Your task to perform on an android device: open app "Clock" Image 0: 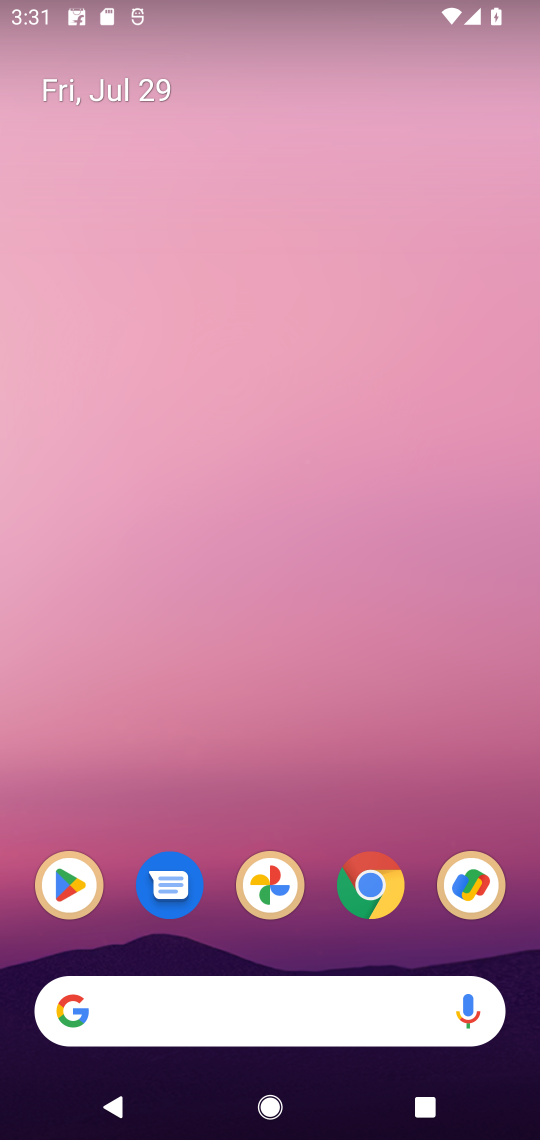
Step 0: click (69, 868)
Your task to perform on an android device: open app "Clock" Image 1: 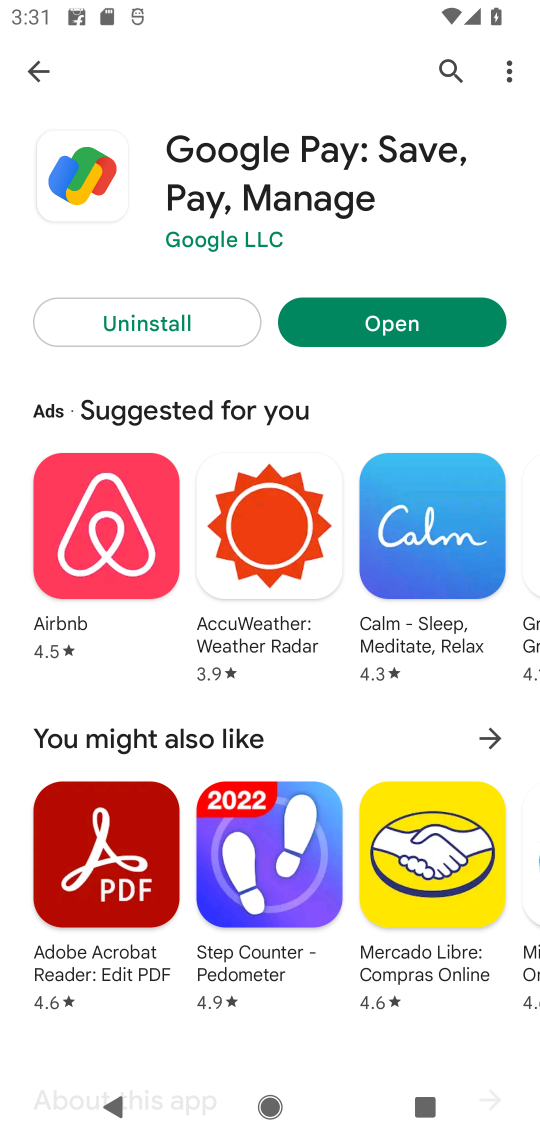
Step 1: click (457, 59)
Your task to perform on an android device: open app "Clock" Image 2: 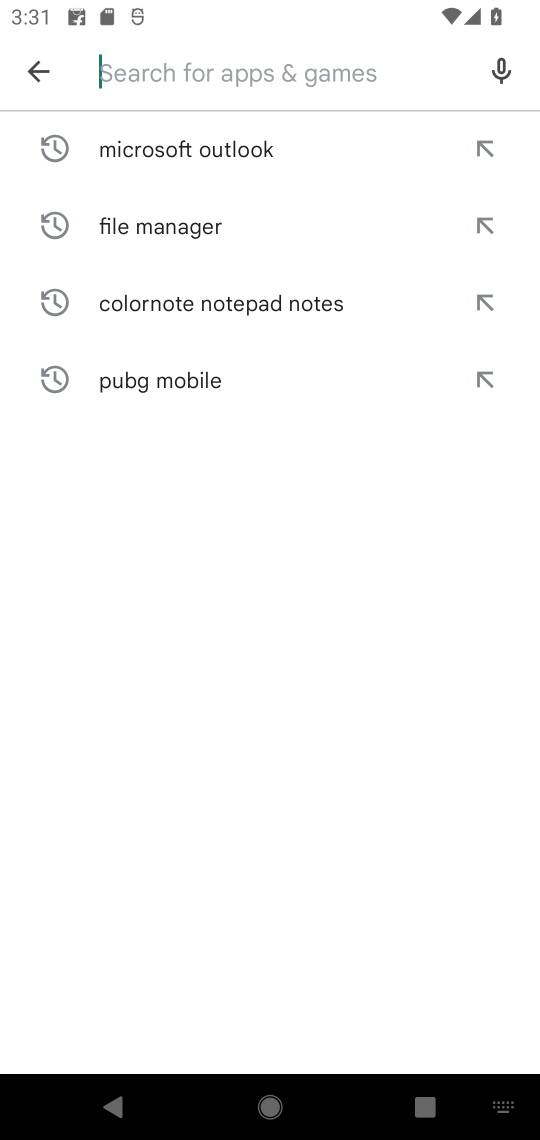
Step 2: click (457, 59)
Your task to perform on an android device: open app "Clock" Image 3: 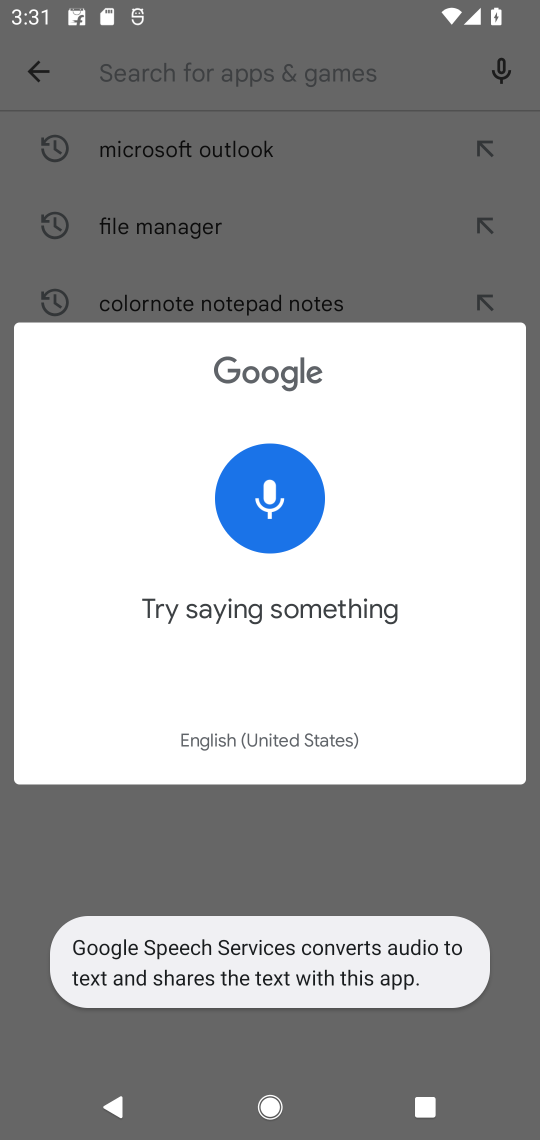
Step 3: click (389, 100)
Your task to perform on an android device: open app "Clock" Image 4: 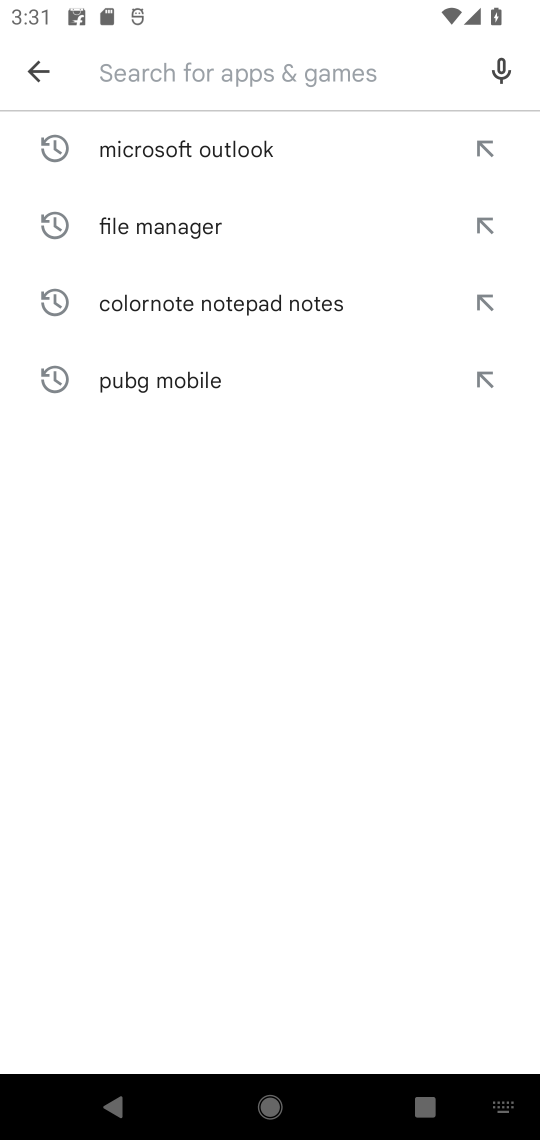
Step 4: type "Clock"
Your task to perform on an android device: open app "Clock" Image 5: 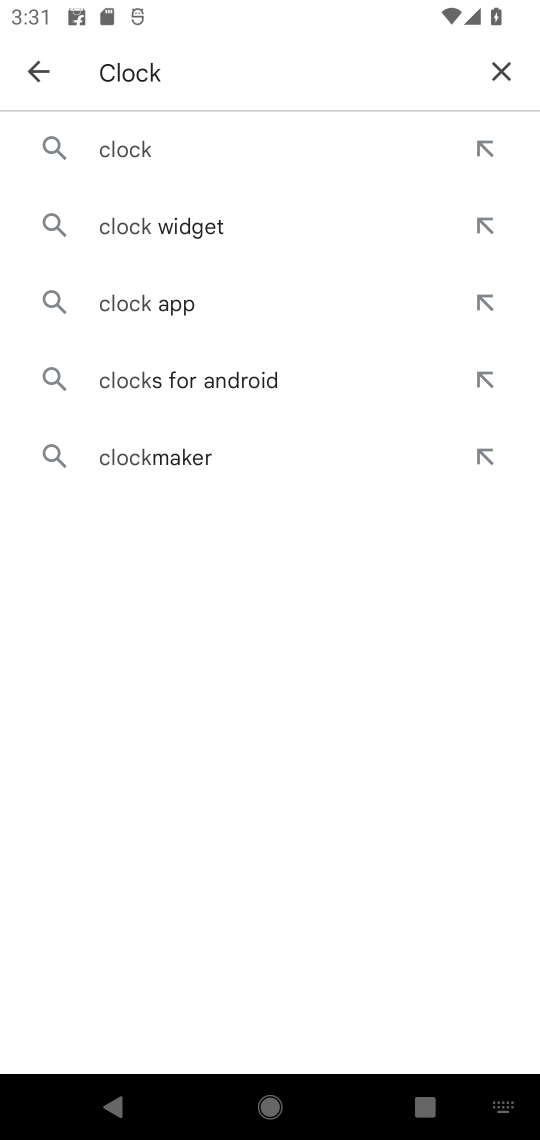
Step 5: click (296, 133)
Your task to perform on an android device: open app "Clock" Image 6: 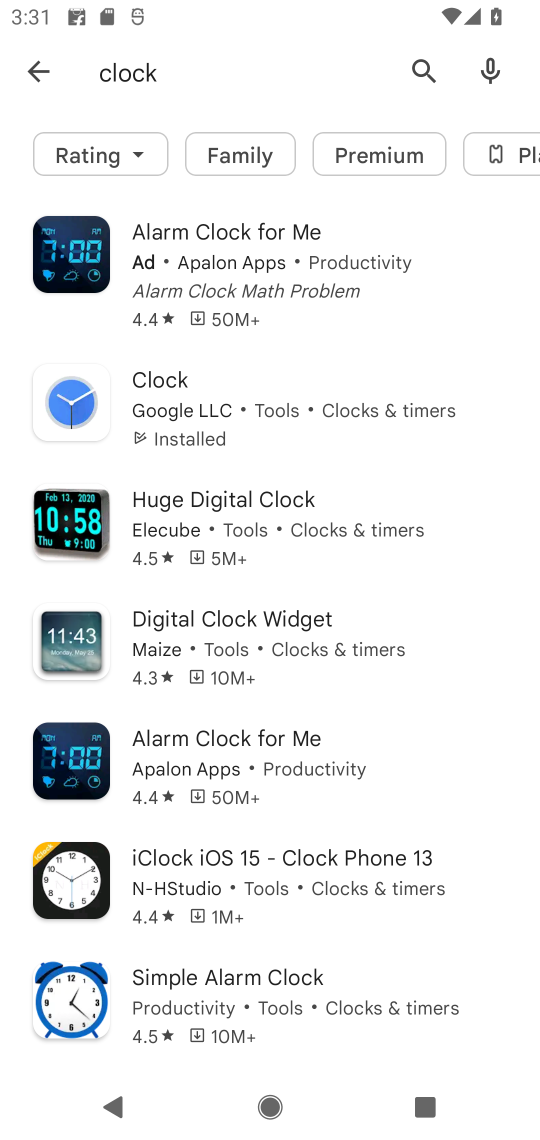
Step 6: click (256, 419)
Your task to perform on an android device: open app "Clock" Image 7: 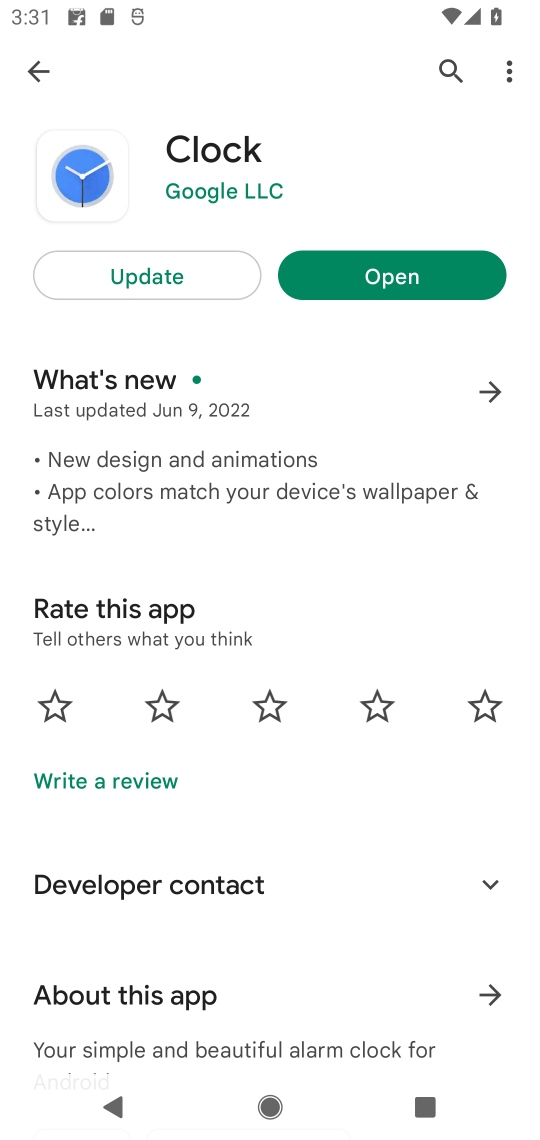
Step 7: click (373, 269)
Your task to perform on an android device: open app "Clock" Image 8: 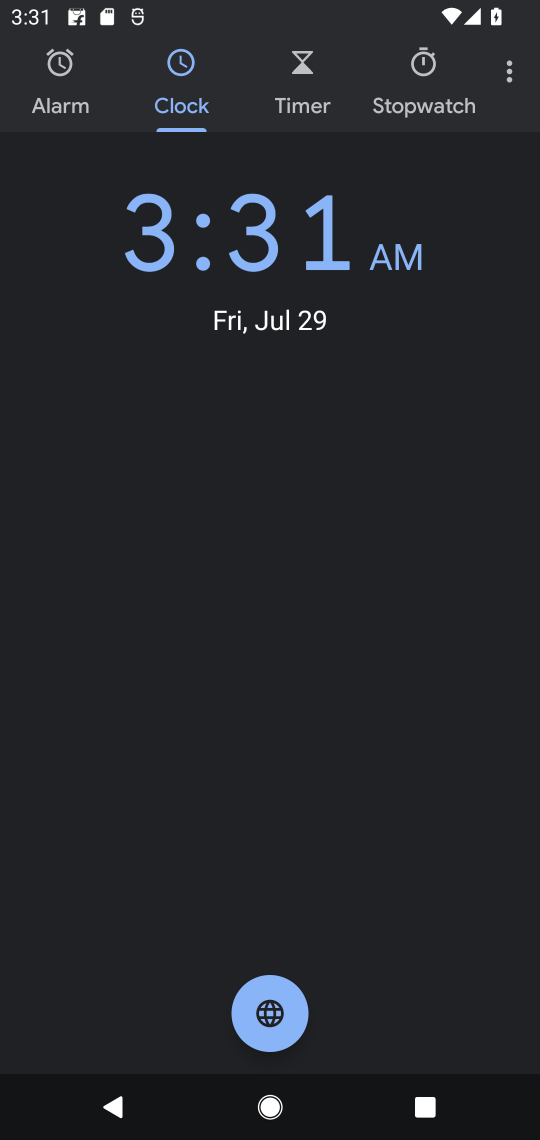
Step 8: task complete